Your task to perform on an android device: turn off notifications in google photos Image 0: 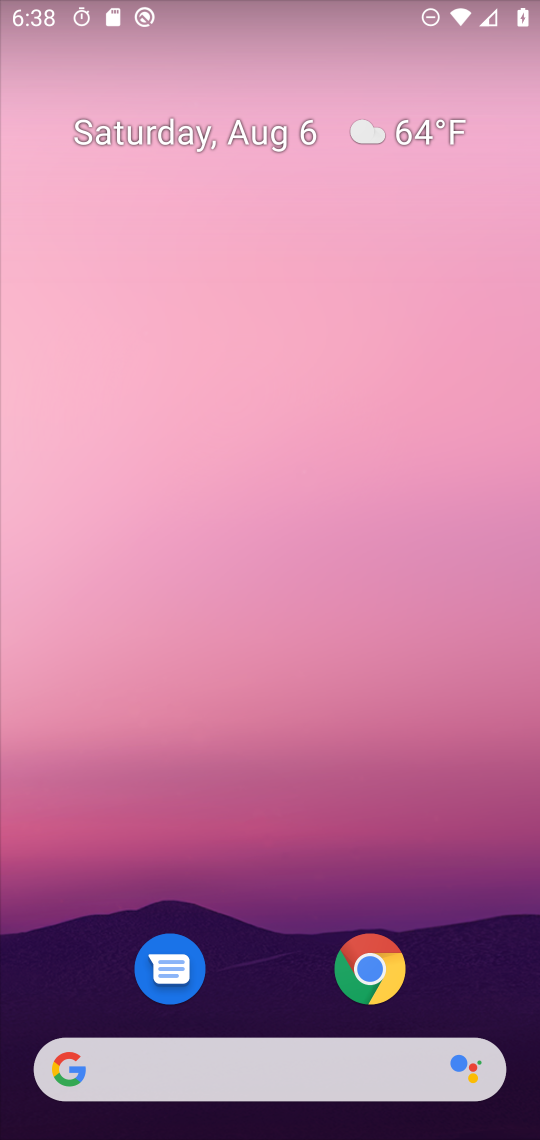
Step 0: drag from (262, 993) to (498, 306)
Your task to perform on an android device: turn off notifications in google photos Image 1: 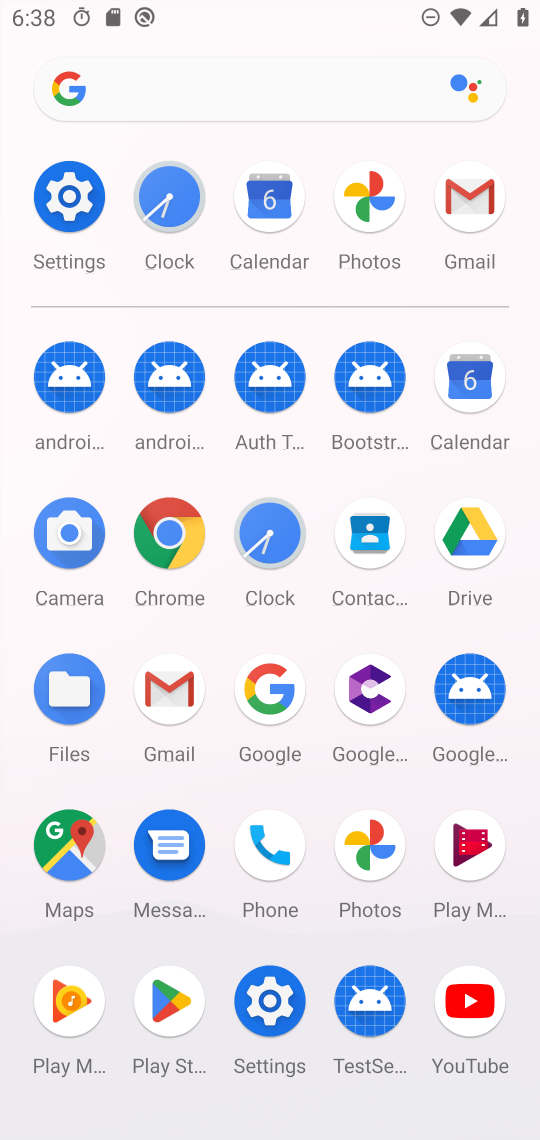
Step 1: click (375, 196)
Your task to perform on an android device: turn off notifications in google photos Image 2: 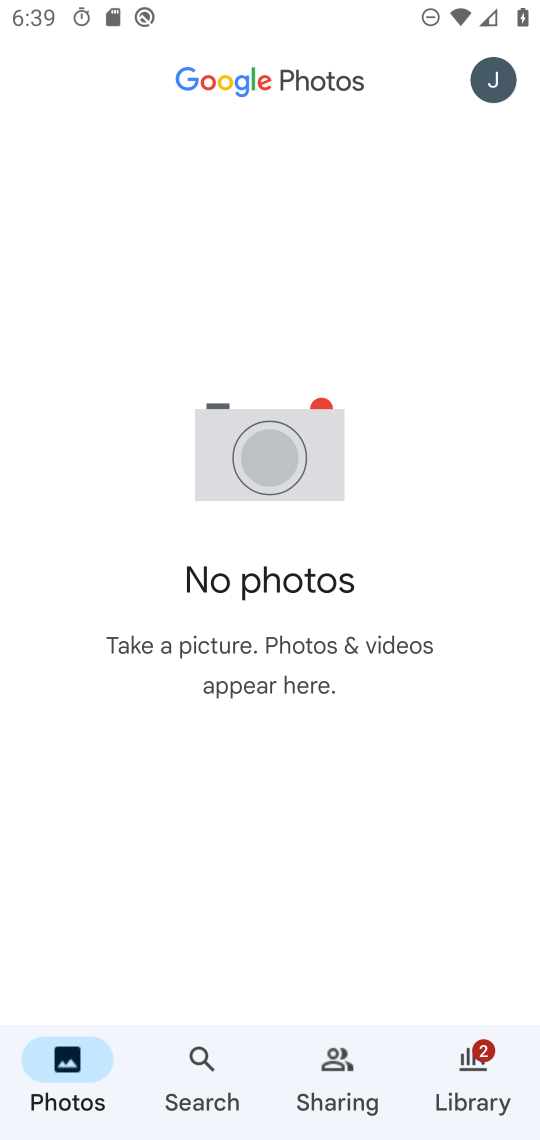
Step 2: press home button
Your task to perform on an android device: turn off notifications in google photos Image 3: 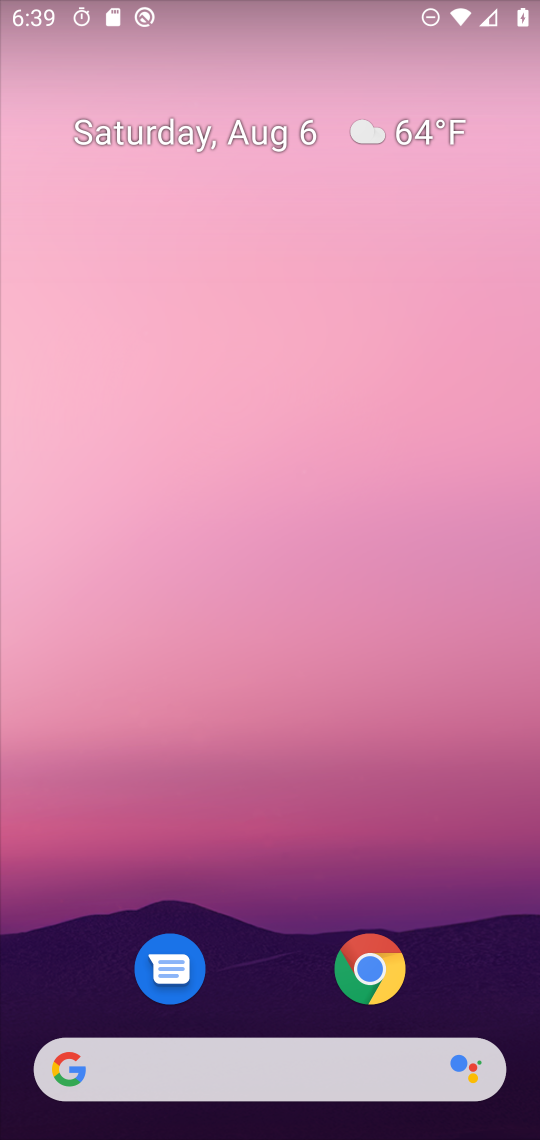
Step 3: drag from (277, 992) to (320, 194)
Your task to perform on an android device: turn off notifications in google photos Image 4: 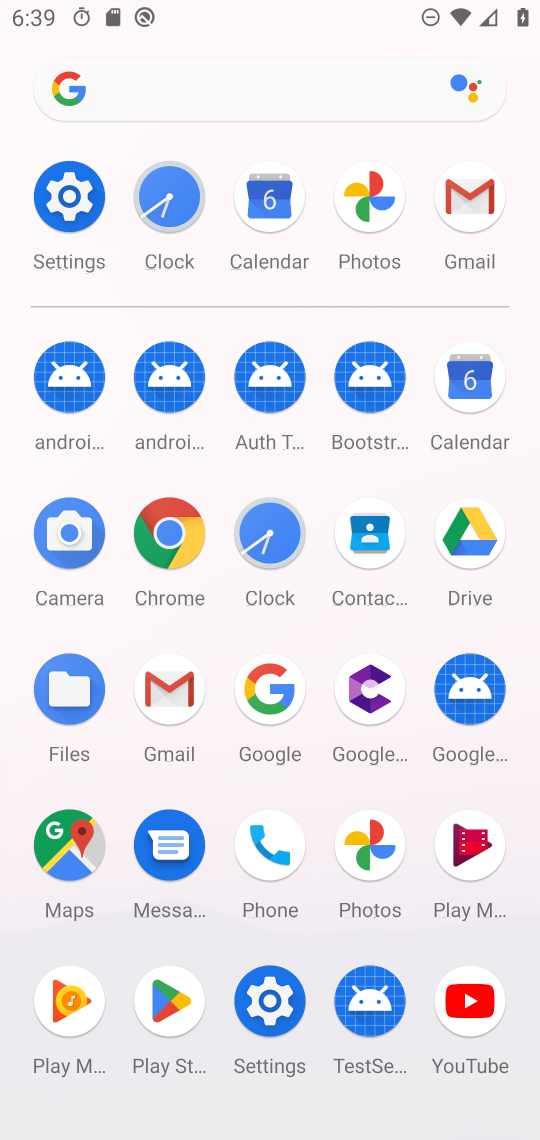
Step 4: click (368, 197)
Your task to perform on an android device: turn off notifications in google photos Image 5: 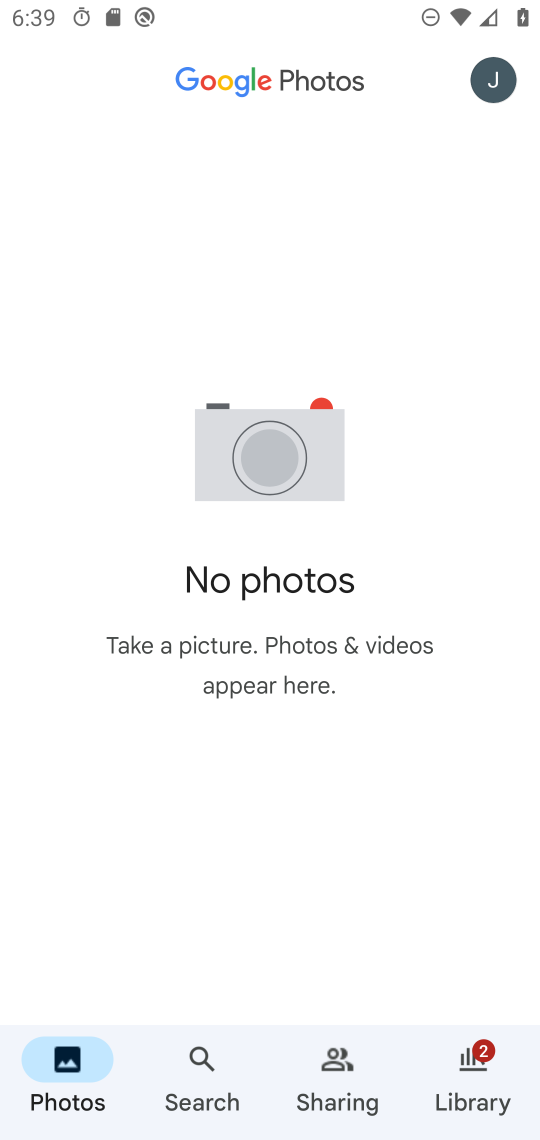
Step 5: click (494, 96)
Your task to perform on an android device: turn off notifications in google photos Image 6: 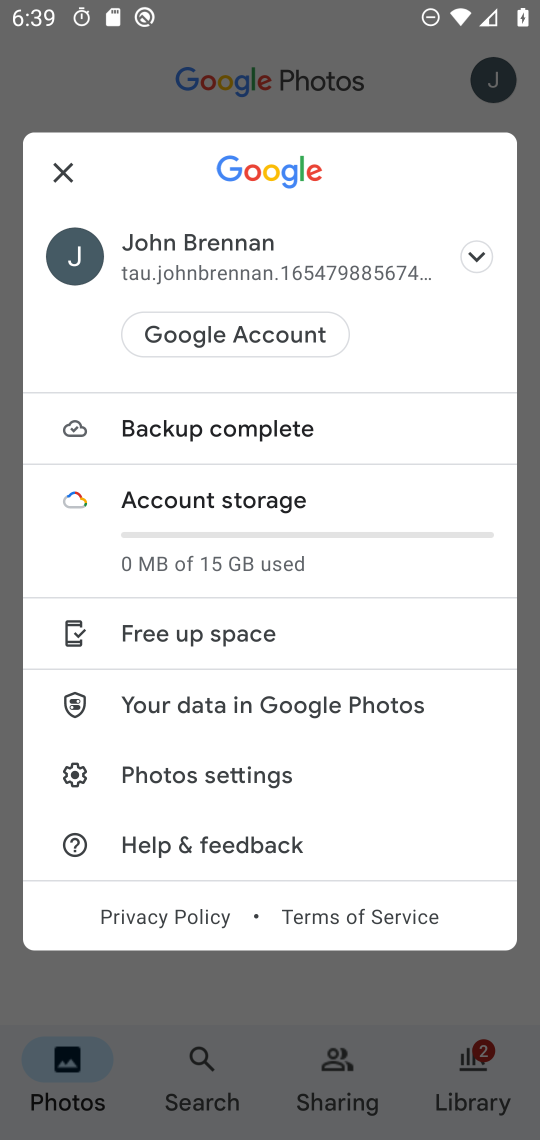
Step 6: click (206, 774)
Your task to perform on an android device: turn off notifications in google photos Image 7: 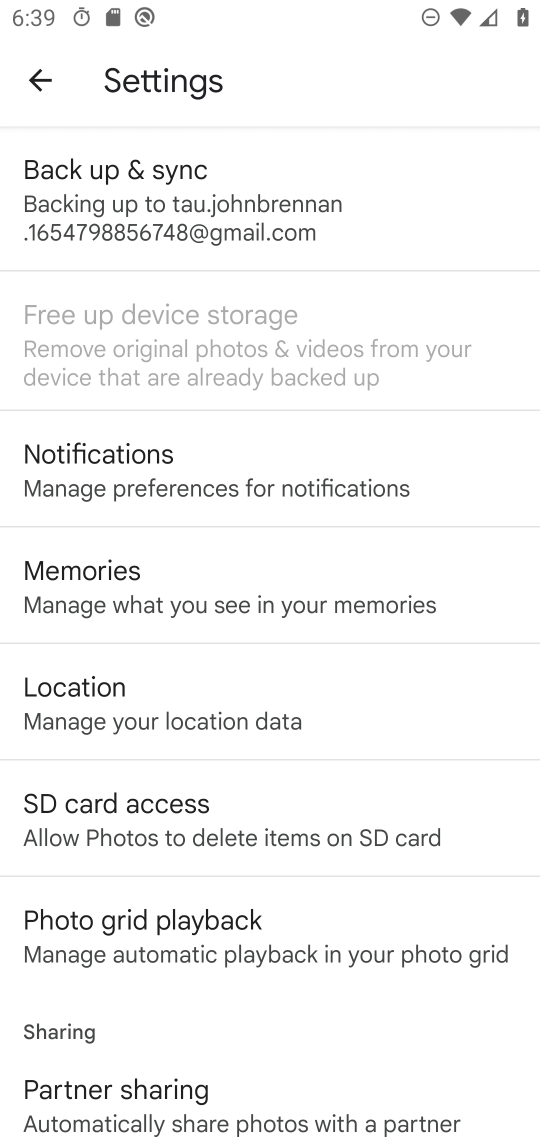
Step 7: click (139, 484)
Your task to perform on an android device: turn off notifications in google photos Image 8: 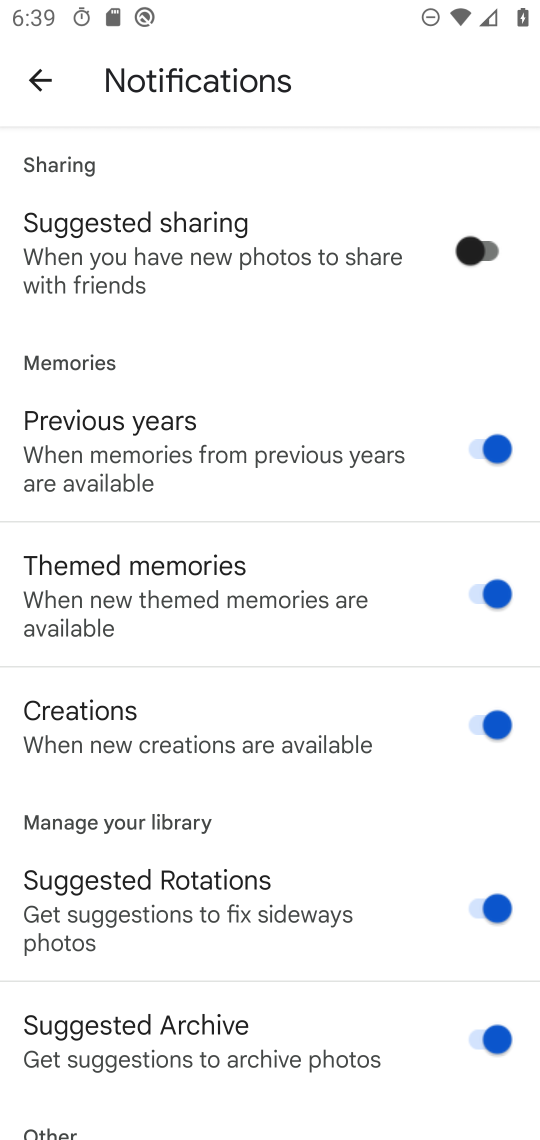
Step 8: task complete